Your task to perform on an android device: snooze an email in the gmail app Image 0: 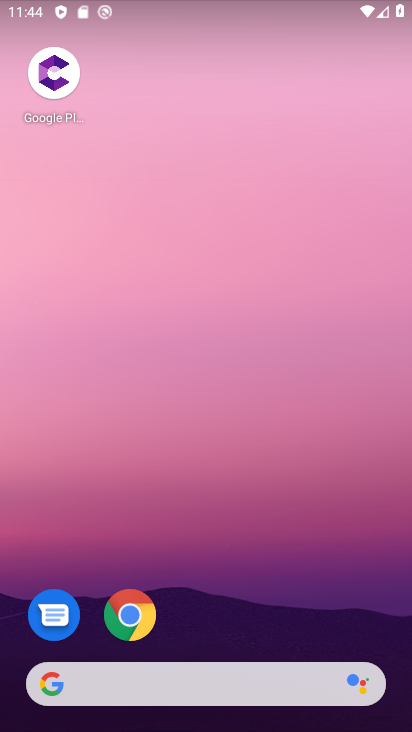
Step 0: drag from (148, 577) to (219, 92)
Your task to perform on an android device: snooze an email in the gmail app Image 1: 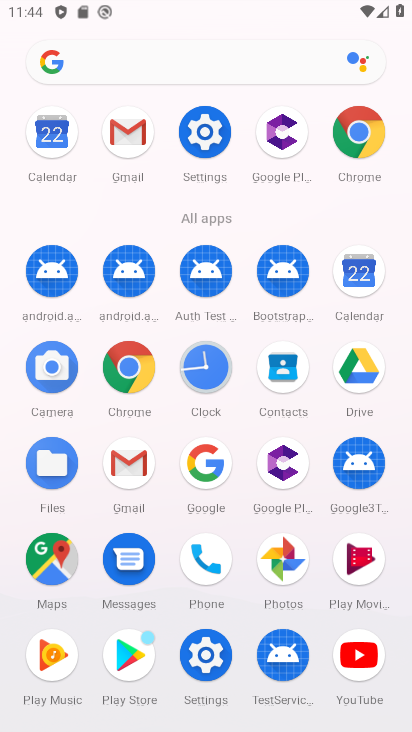
Step 1: click (136, 118)
Your task to perform on an android device: snooze an email in the gmail app Image 2: 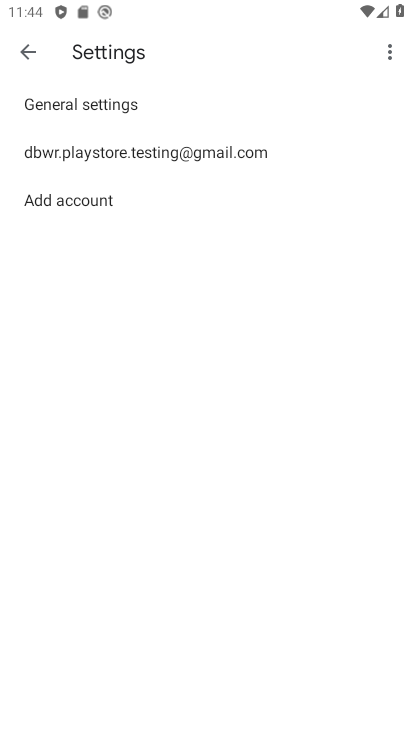
Step 2: click (21, 42)
Your task to perform on an android device: snooze an email in the gmail app Image 3: 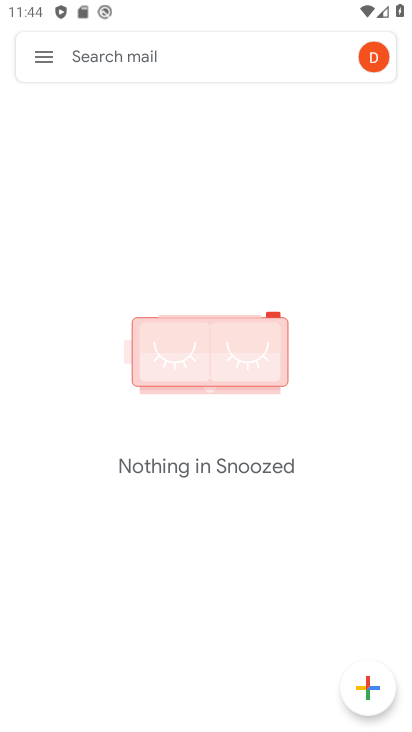
Step 3: click (36, 45)
Your task to perform on an android device: snooze an email in the gmail app Image 4: 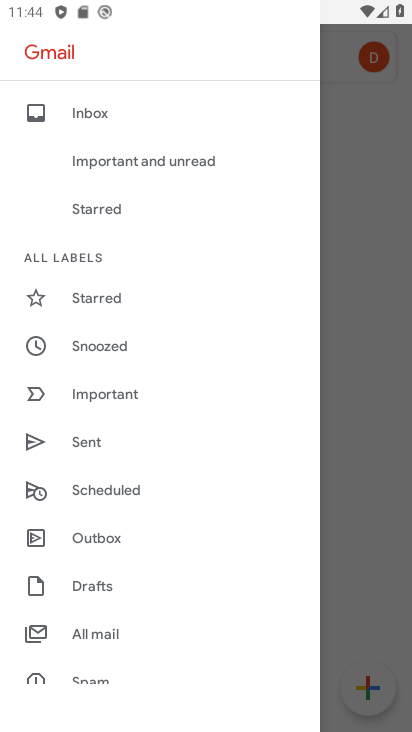
Step 4: click (86, 642)
Your task to perform on an android device: snooze an email in the gmail app Image 5: 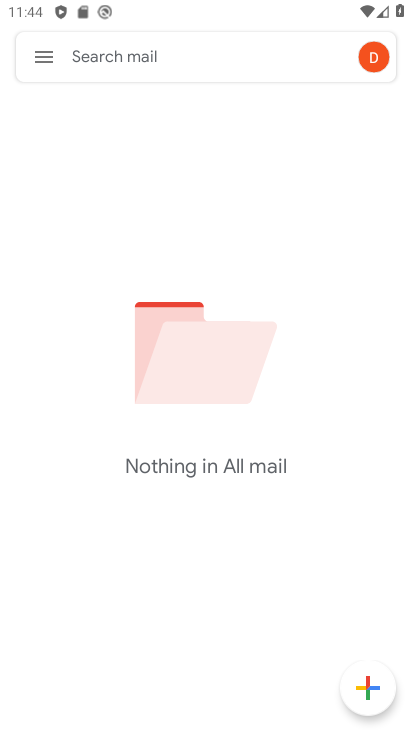
Step 5: task complete